Your task to perform on an android device: turn notification dots on Image 0: 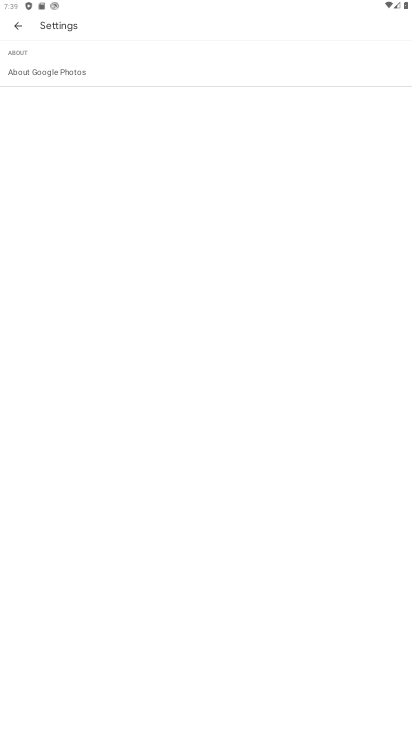
Step 0: press home button
Your task to perform on an android device: turn notification dots on Image 1: 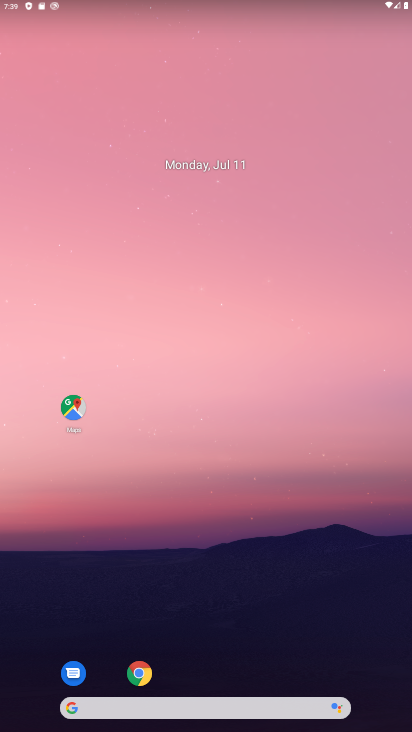
Step 1: drag from (378, 615) to (286, 136)
Your task to perform on an android device: turn notification dots on Image 2: 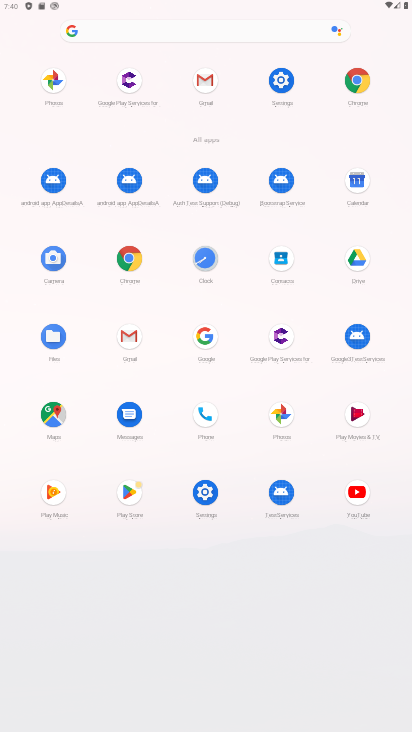
Step 2: click (281, 70)
Your task to perform on an android device: turn notification dots on Image 3: 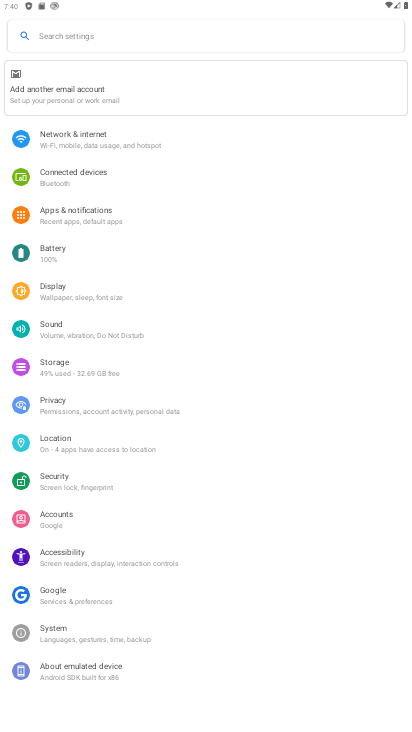
Step 3: click (91, 216)
Your task to perform on an android device: turn notification dots on Image 4: 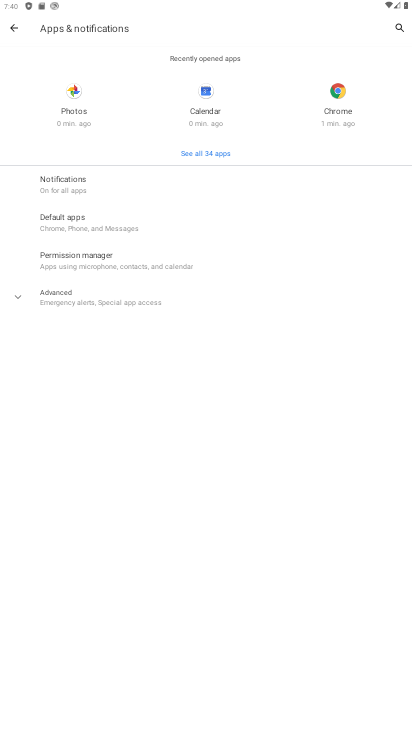
Step 4: click (86, 187)
Your task to perform on an android device: turn notification dots on Image 5: 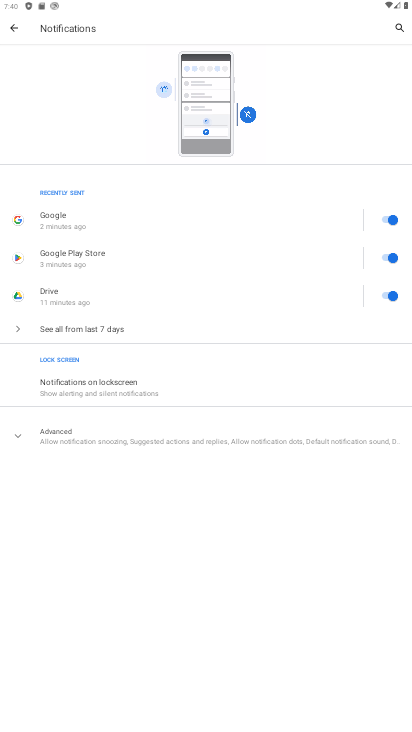
Step 5: click (84, 435)
Your task to perform on an android device: turn notification dots on Image 6: 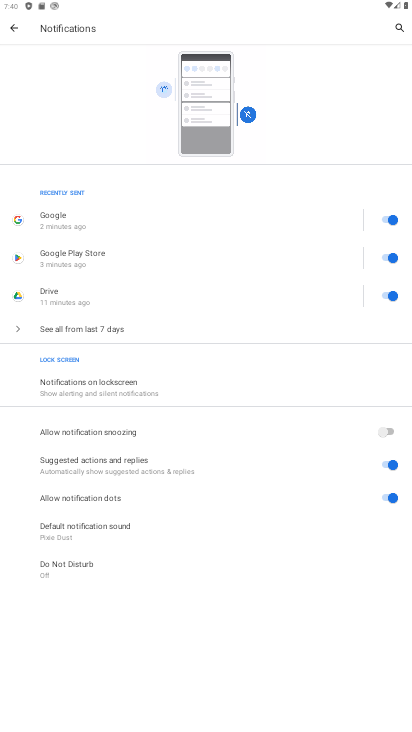
Step 6: task complete